Your task to perform on an android device: empty trash in google photos Image 0: 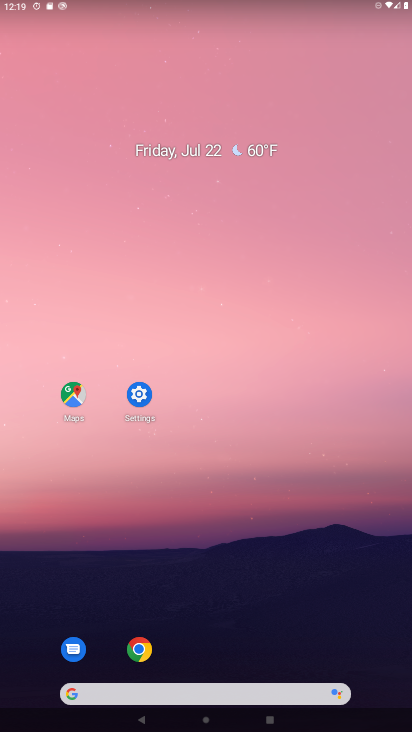
Step 0: drag from (377, 705) to (222, 9)
Your task to perform on an android device: empty trash in google photos Image 1: 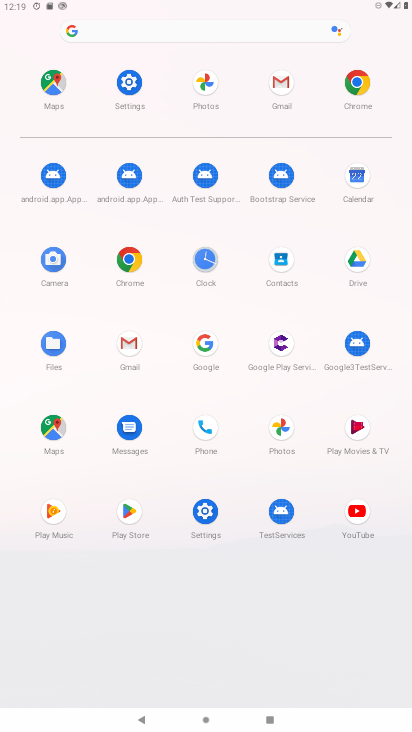
Step 1: click (283, 426)
Your task to perform on an android device: empty trash in google photos Image 2: 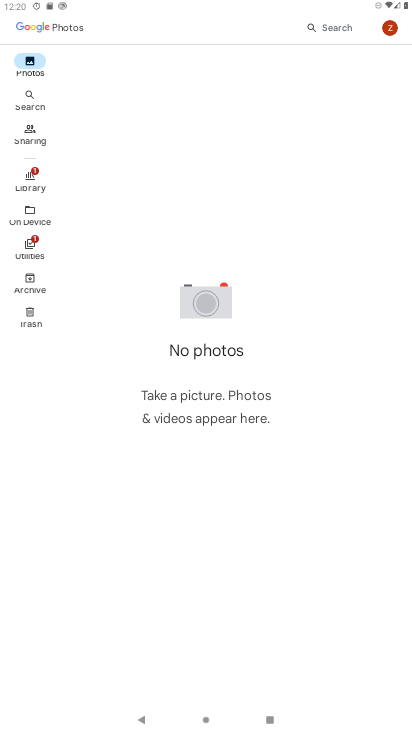
Step 2: click (29, 317)
Your task to perform on an android device: empty trash in google photos Image 3: 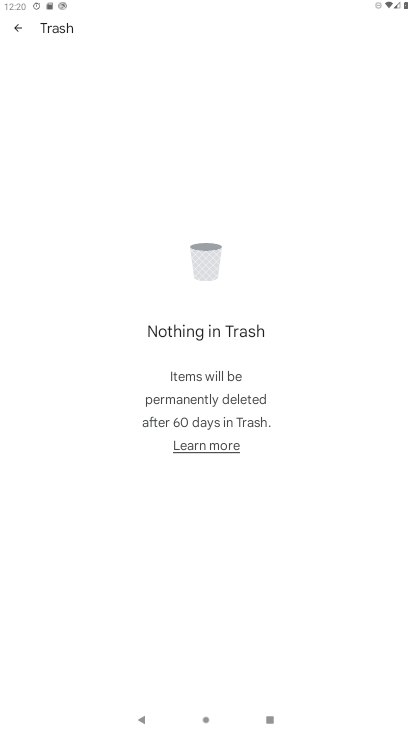
Step 3: task complete